Your task to perform on an android device: Open maps Image 0: 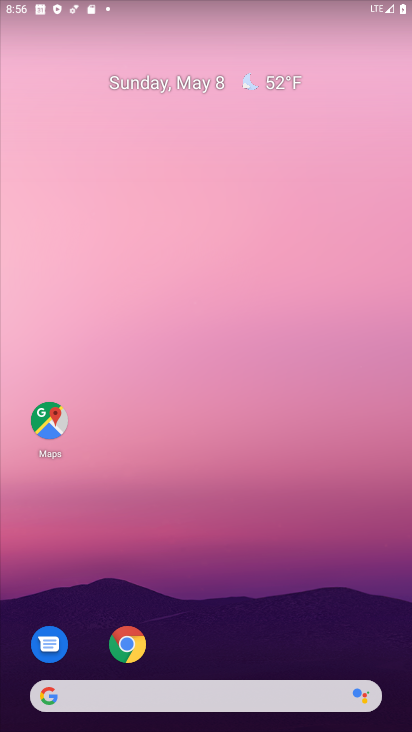
Step 0: drag from (200, 631) to (255, 35)
Your task to perform on an android device: Open maps Image 1: 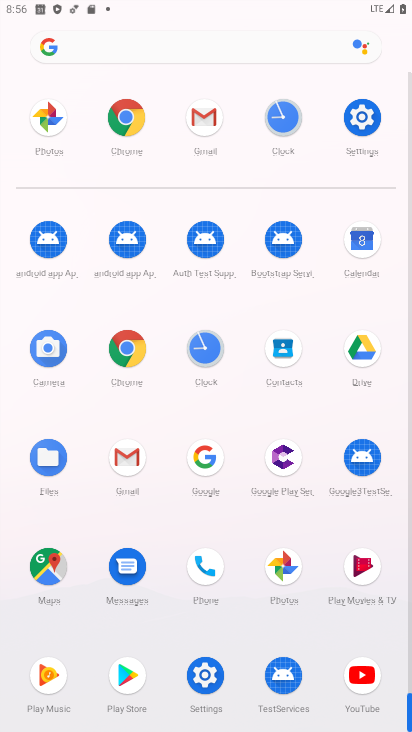
Step 1: click (44, 559)
Your task to perform on an android device: Open maps Image 2: 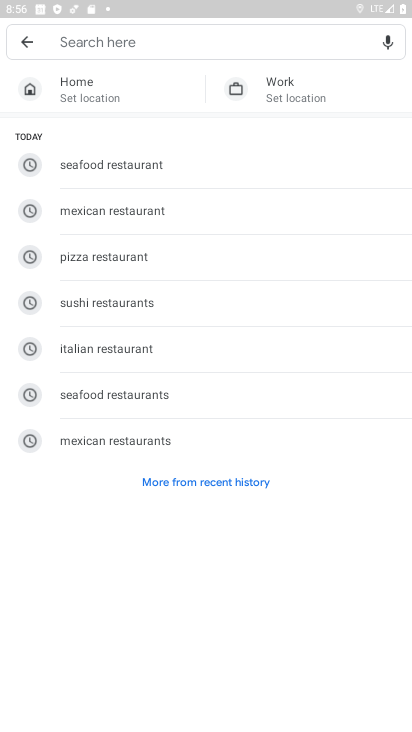
Step 2: click (111, 101)
Your task to perform on an android device: Open maps Image 3: 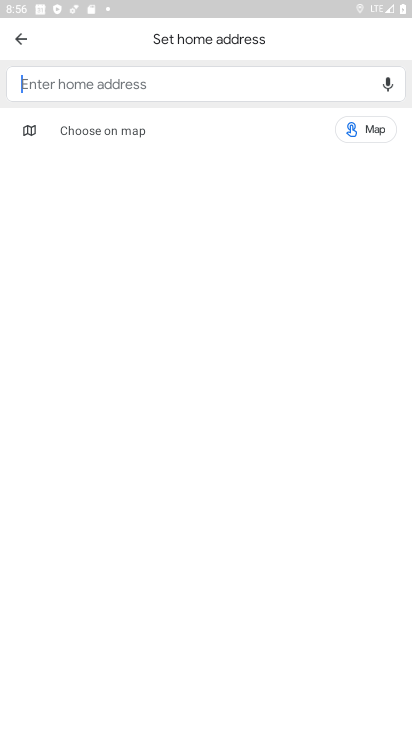
Step 3: task complete